Your task to perform on an android device: visit the assistant section in the google photos Image 0: 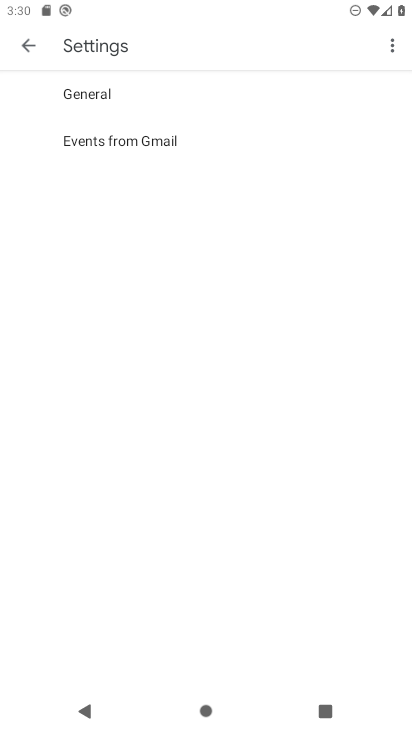
Step 0: press home button
Your task to perform on an android device: visit the assistant section in the google photos Image 1: 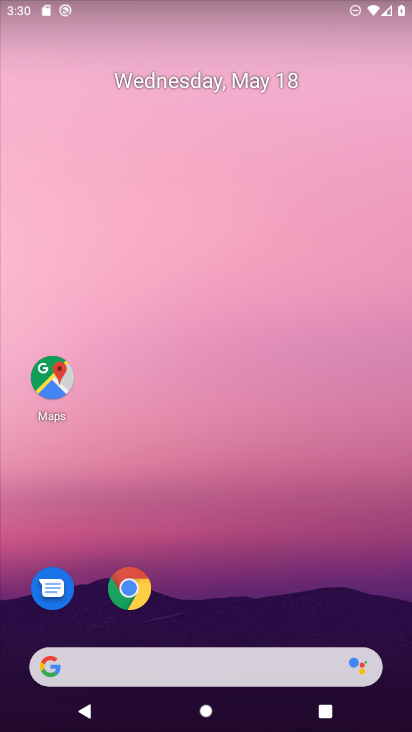
Step 1: drag from (195, 560) to (255, 149)
Your task to perform on an android device: visit the assistant section in the google photos Image 2: 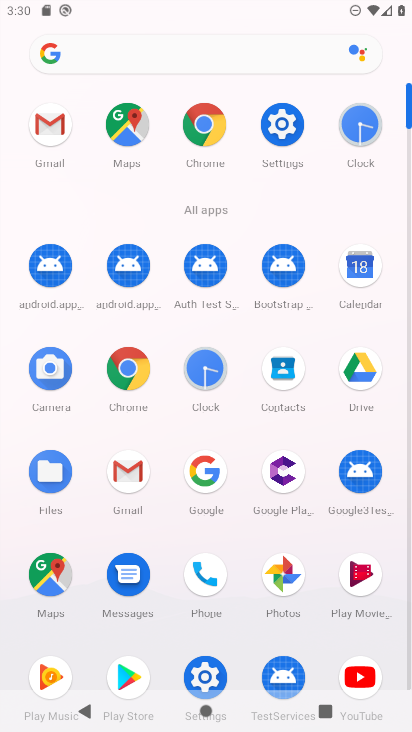
Step 2: click (283, 588)
Your task to perform on an android device: visit the assistant section in the google photos Image 3: 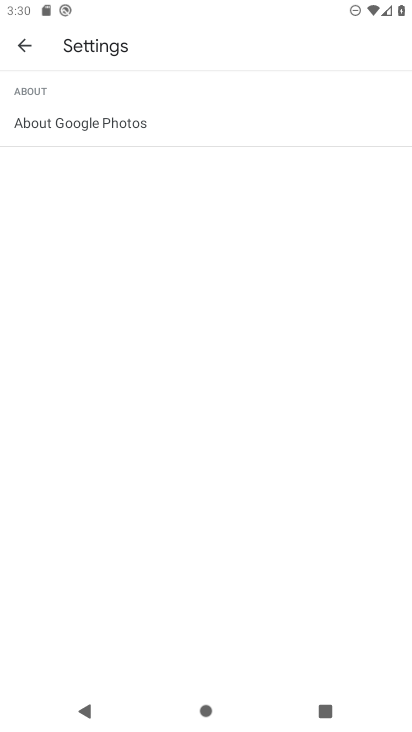
Step 3: click (10, 56)
Your task to perform on an android device: visit the assistant section in the google photos Image 4: 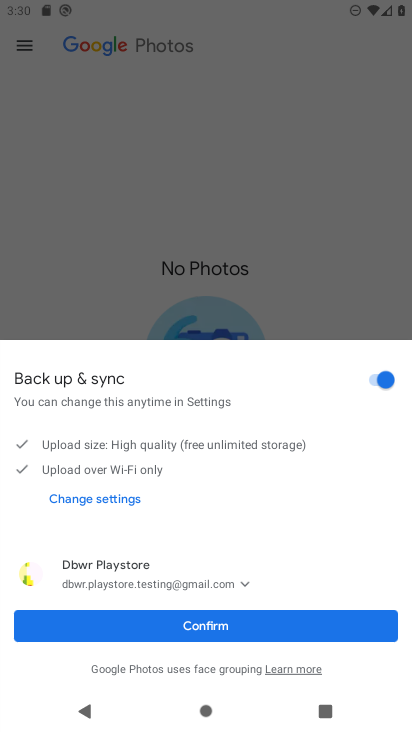
Step 4: click (144, 628)
Your task to perform on an android device: visit the assistant section in the google photos Image 5: 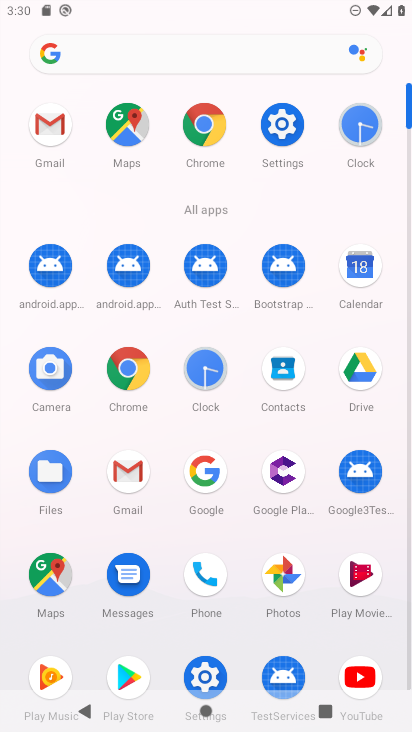
Step 5: click (260, 561)
Your task to perform on an android device: visit the assistant section in the google photos Image 6: 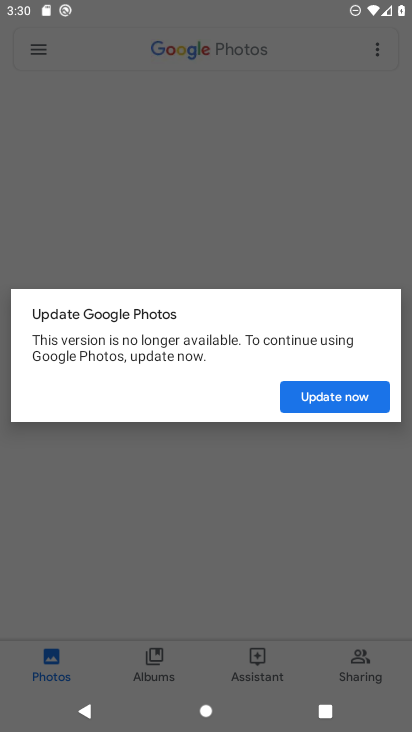
Step 6: click (326, 421)
Your task to perform on an android device: visit the assistant section in the google photos Image 7: 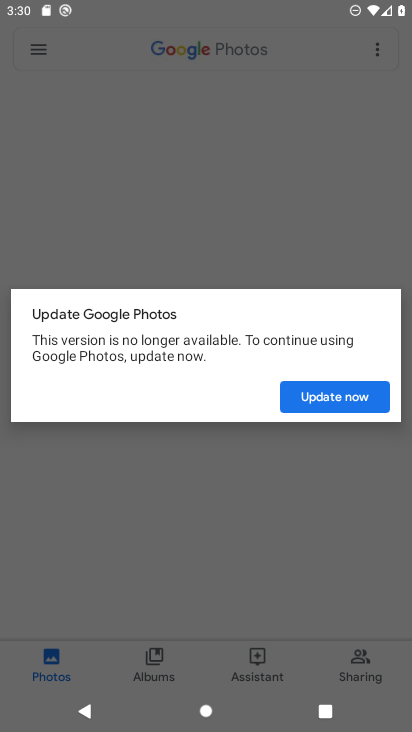
Step 7: click (334, 401)
Your task to perform on an android device: visit the assistant section in the google photos Image 8: 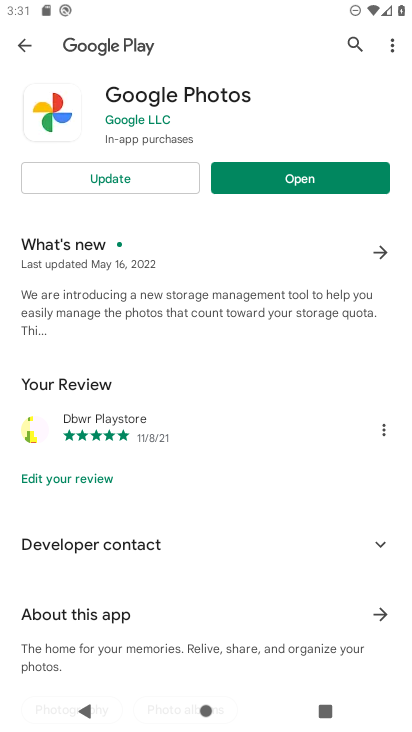
Step 8: click (149, 166)
Your task to perform on an android device: visit the assistant section in the google photos Image 9: 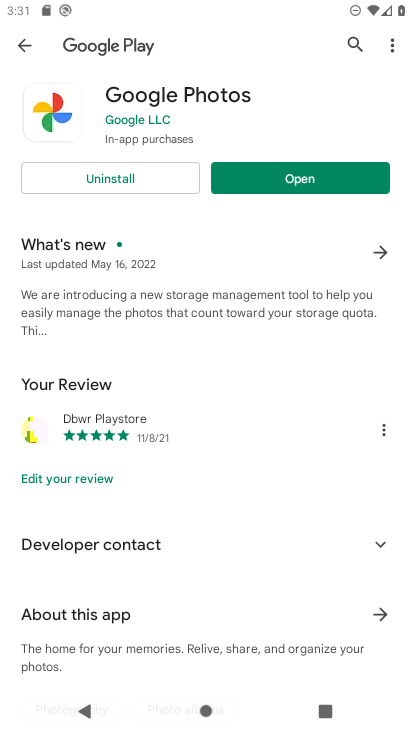
Step 9: click (294, 175)
Your task to perform on an android device: visit the assistant section in the google photos Image 10: 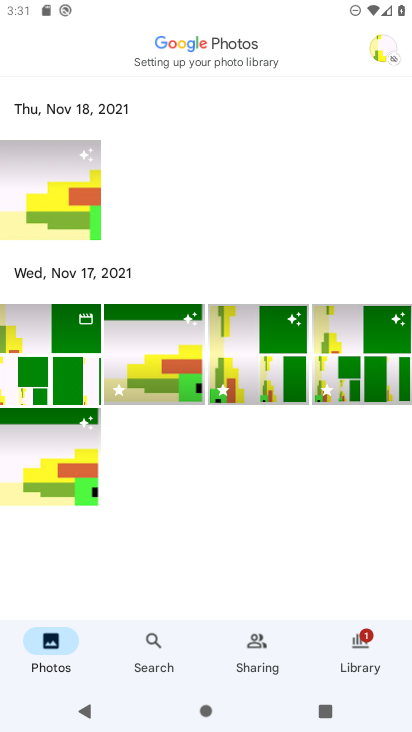
Step 10: click (368, 669)
Your task to perform on an android device: visit the assistant section in the google photos Image 11: 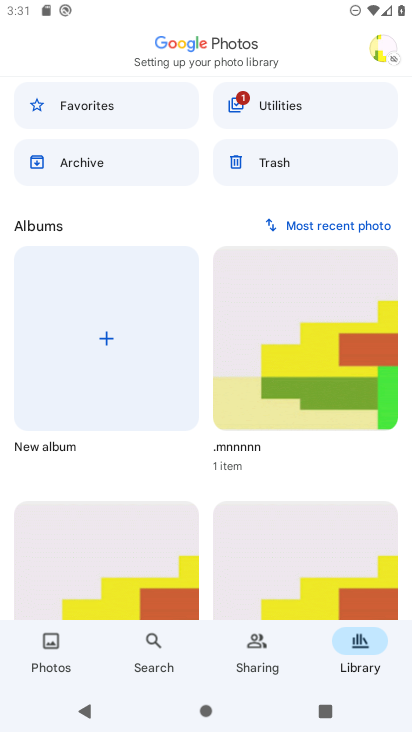
Step 11: click (266, 115)
Your task to perform on an android device: visit the assistant section in the google photos Image 12: 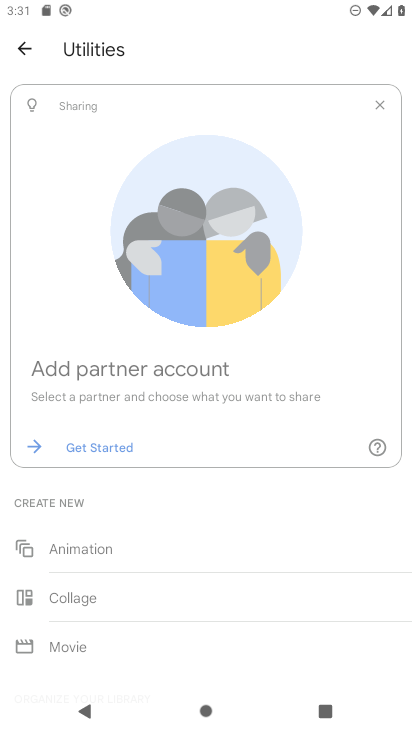
Step 12: task complete